Your task to perform on an android device: Open display settings Image 0: 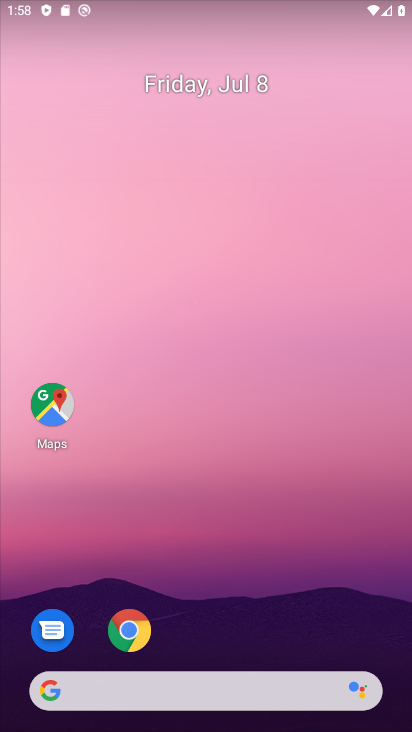
Step 0: drag from (341, 604) to (300, 55)
Your task to perform on an android device: Open display settings Image 1: 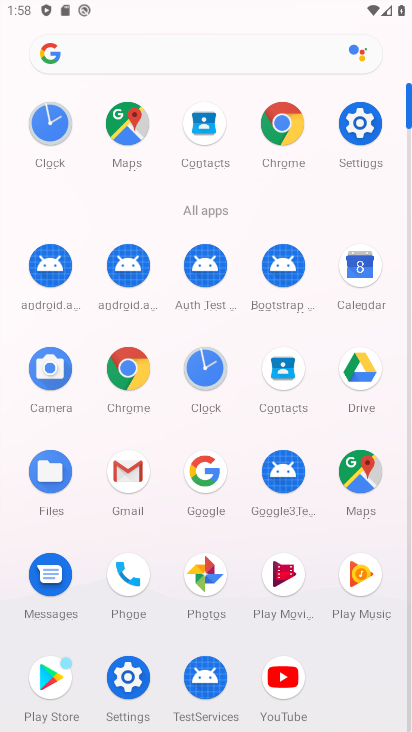
Step 1: click (367, 117)
Your task to perform on an android device: Open display settings Image 2: 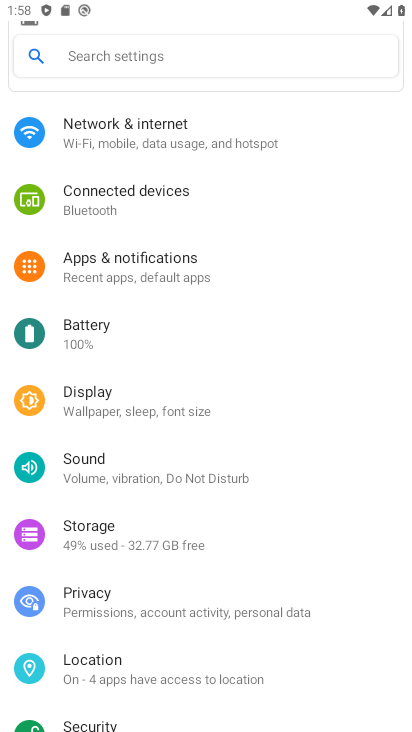
Step 2: click (109, 407)
Your task to perform on an android device: Open display settings Image 3: 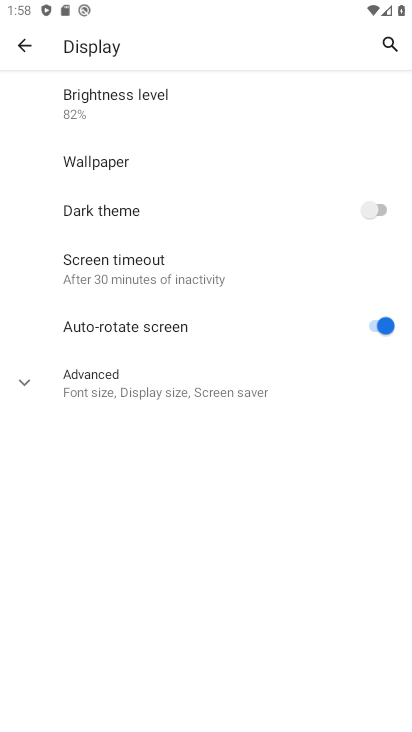
Step 3: task complete